Your task to perform on an android device: turn off translation in the chrome app Image 0: 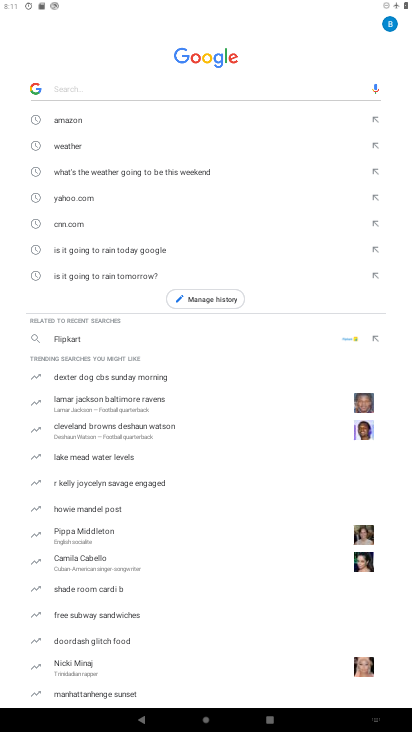
Step 0: press home button
Your task to perform on an android device: turn off translation in the chrome app Image 1: 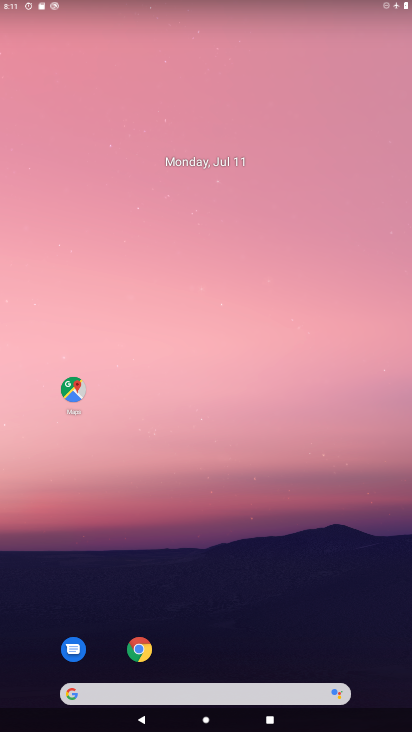
Step 1: click (140, 648)
Your task to perform on an android device: turn off translation in the chrome app Image 2: 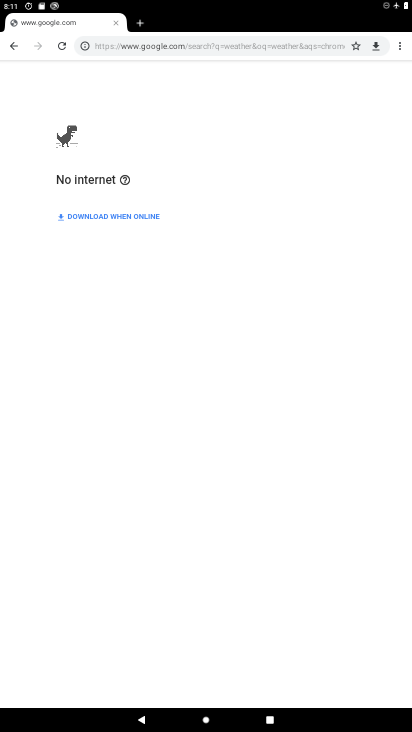
Step 2: click (399, 45)
Your task to perform on an android device: turn off translation in the chrome app Image 3: 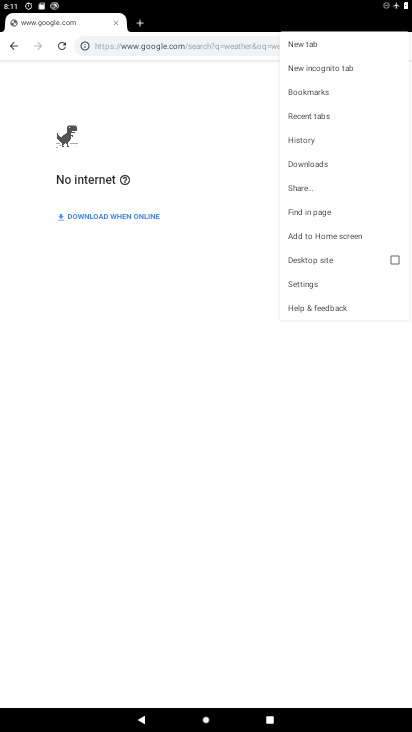
Step 3: click (307, 285)
Your task to perform on an android device: turn off translation in the chrome app Image 4: 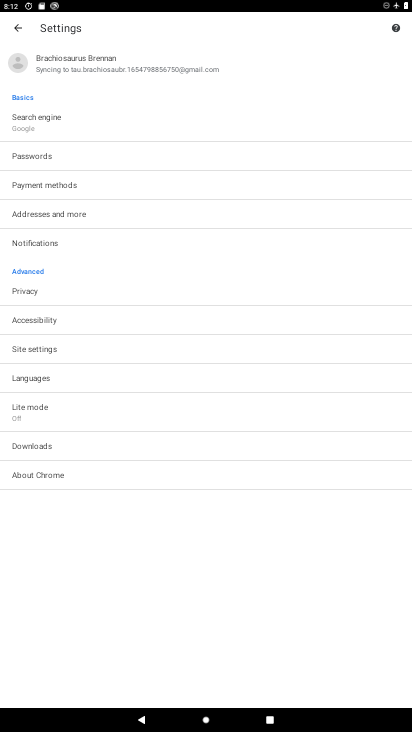
Step 4: click (19, 380)
Your task to perform on an android device: turn off translation in the chrome app Image 5: 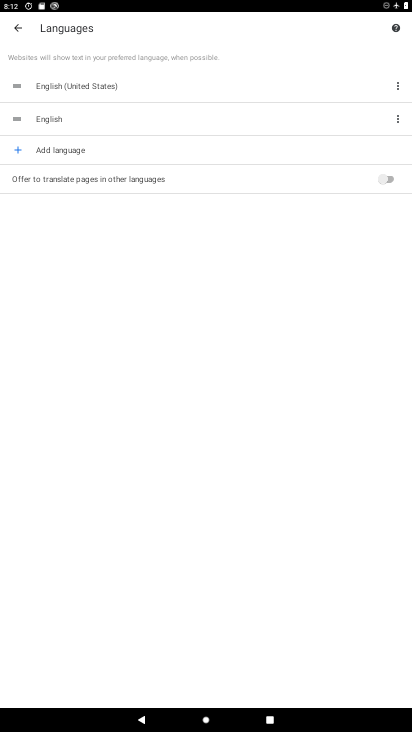
Step 5: task complete